Your task to perform on an android device: Check the weather Image 0: 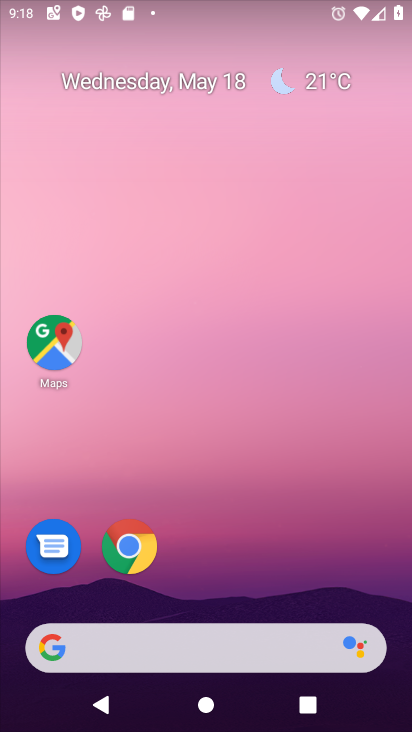
Step 0: drag from (387, 655) to (334, 82)
Your task to perform on an android device: Check the weather Image 1: 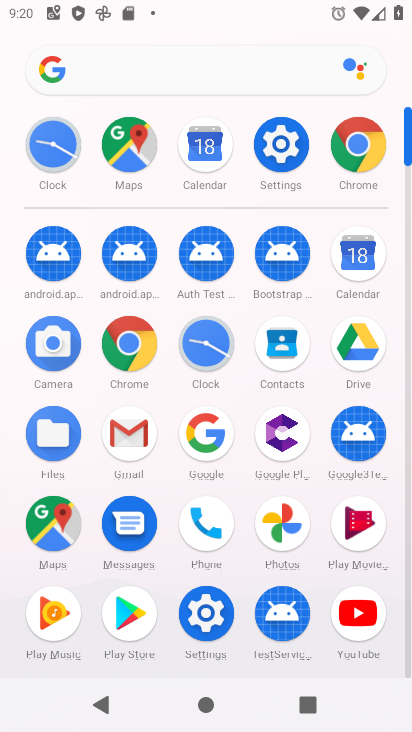
Step 1: click (213, 426)
Your task to perform on an android device: Check the weather Image 2: 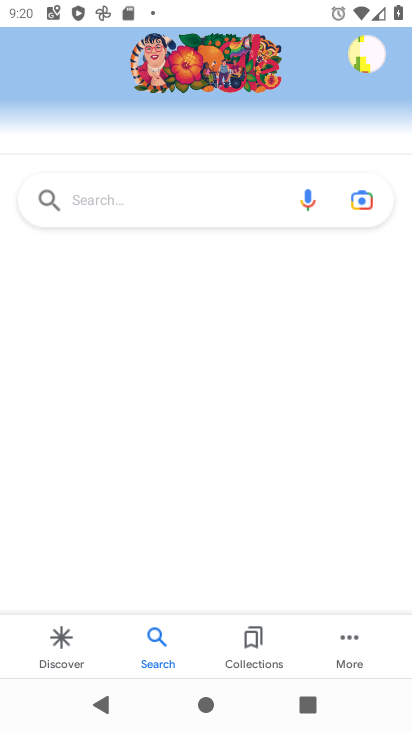
Step 2: click (109, 191)
Your task to perform on an android device: Check the weather Image 3: 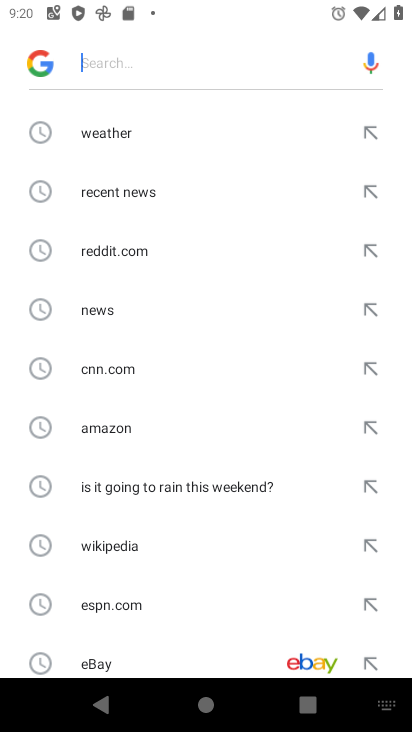
Step 3: click (158, 137)
Your task to perform on an android device: Check the weather Image 4: 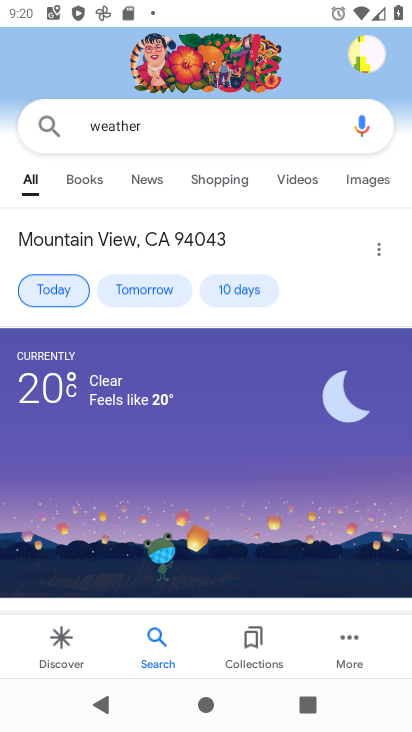
Step 4: task complete